Your task to perform on an android device: Clear the shopping cart on walmart.com. Add apple airpods to the cart on walmart.com Image 0: 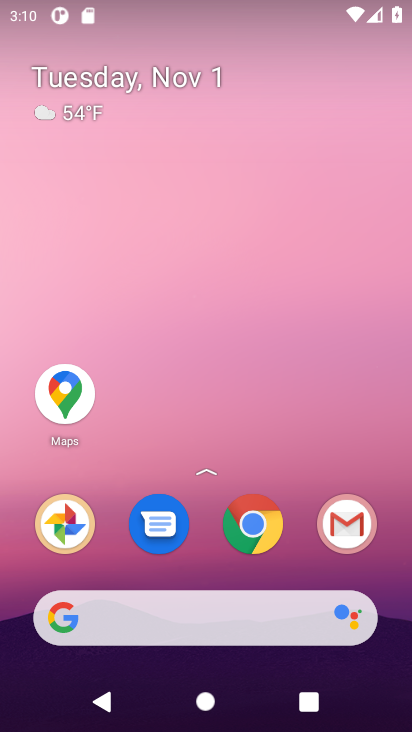
Step 0: click (255, 526)
Your task to perform on an android device: Clear the shopping cart on walmart.com. Add apple airpods to the cart on walmart.com Image 1: 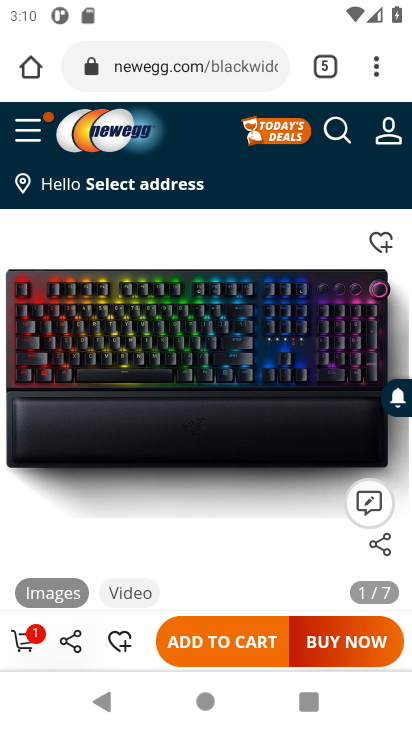
Step 1: click (199, 46)
Your task to perform on an android device: Clear the shopping cart on walmart.com. Add apple airpods to the cart on walmart.com Image 2: 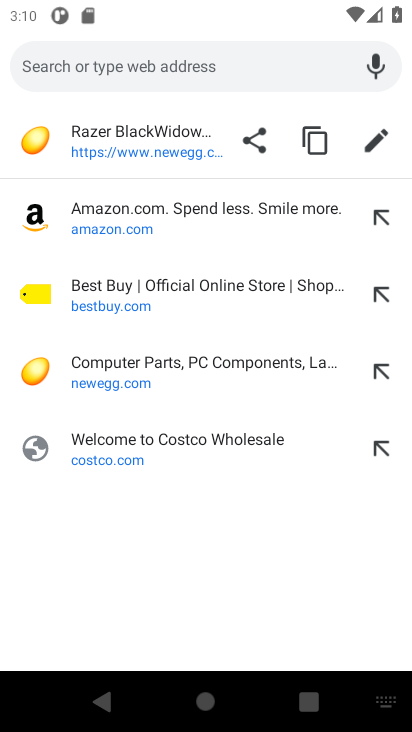
Step 2: type "walmart.com"
Your task to perform on an android device: Clear the shopping cart on walmart.com. Add apple airpods to the cart on walmart.com Image 3: 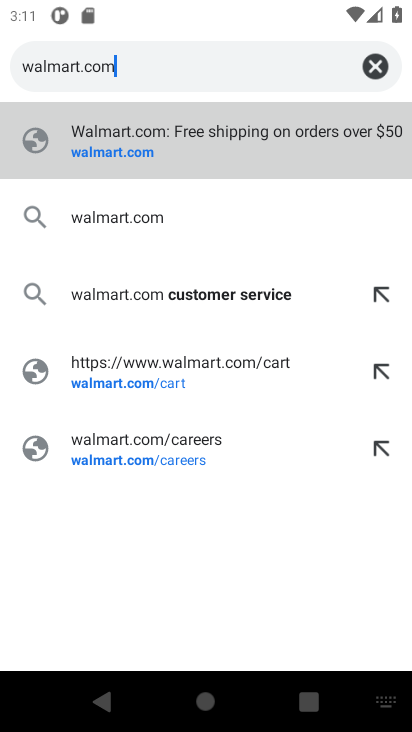
Step 3: click (92, 132)
Your task to perform on an android device: Clear the shopping cart on walmart.com. Add apple airpods to the cart on walmart.com Image 4: 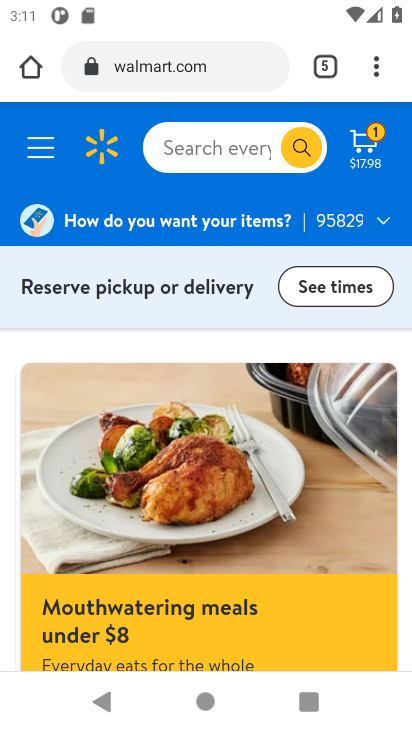
Step 4: click (364, 141)
Your task to perform on an android device: Clear the shopping cart on walmart.com. Add apple airpods to the cart on walmart.com Image 5: 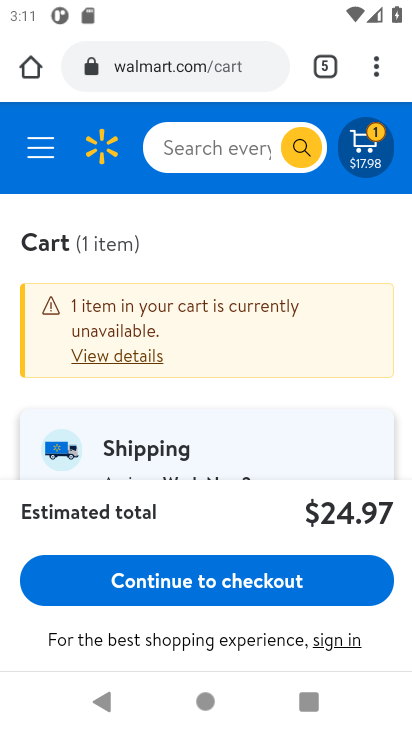
Step 5: drag from (226, 452) to (185, 211)
Your task to perform on an android device: Clear the shopping cart on walmart.com. Add apple airpods to the cart on walmart.com Image 6: 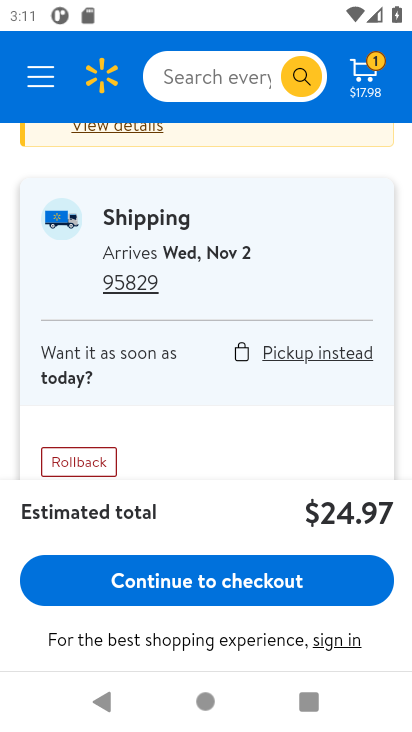
Step 6: drag from (196, 446) to (171, 195)
Your task to perform on an android device: Clear the shopping cart on walmart.com. Add apple airpods to the cart on walmart.com Image 7: 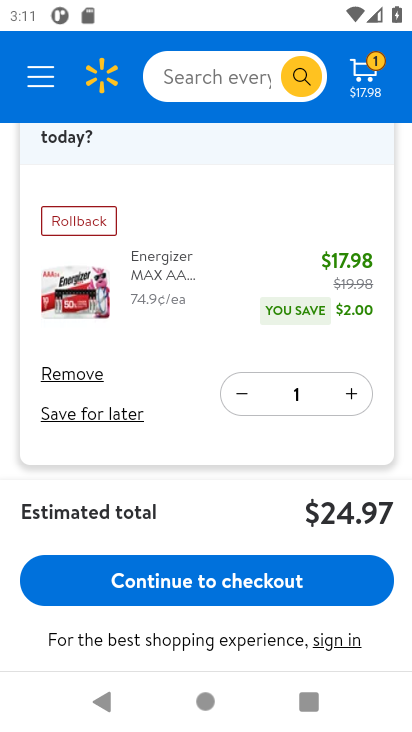
Step 7: click (56, 370)
Your task to perform on an android device: Clear the shopping cart on walmart.com. Add apple airpods to the cart on walmart.com Image 8: 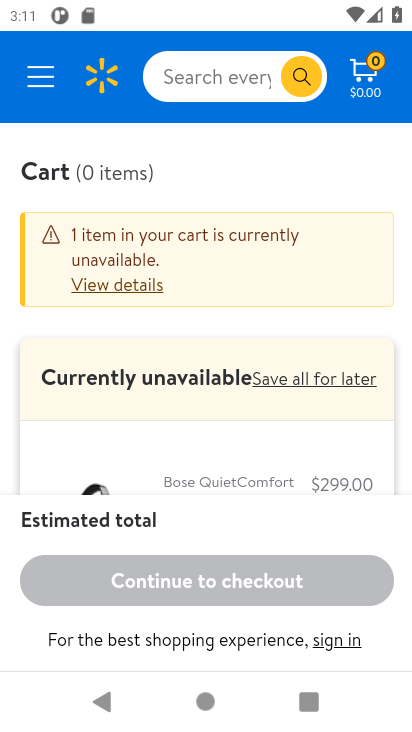
Step 8: drag from (237, 476) to (227, 173)
Your task to perform on an android device: Clear the shopping cart on walmart.com. Add apple airpods to the cart on walmart.com Image 9: 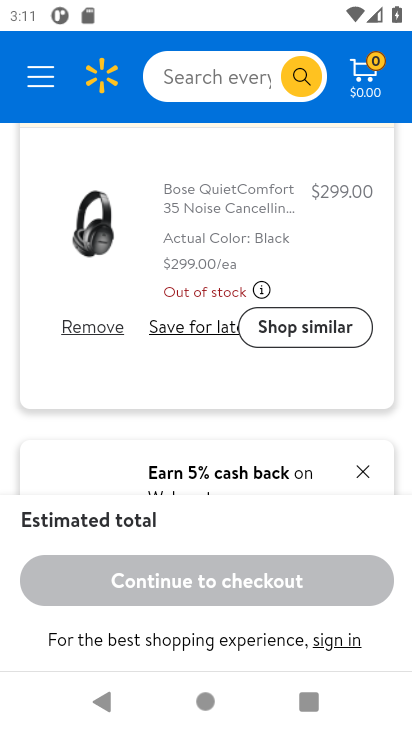
Step 9: click (185, 68)
Your task to perform on an android device: Clear the shopping cart on walmart.com. Add apple airpods to the cart on walmart.com Image 10: 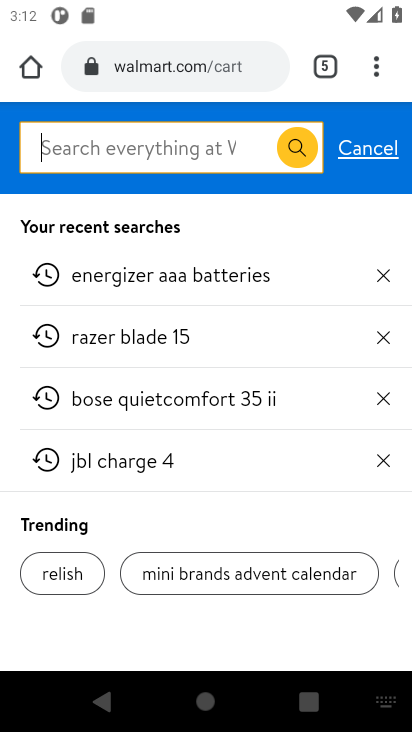
Step 10: type "apple airpods"
Your task to perform on an android device: Clear the shopping cart on walmart.com. Add apple airpods to the cart on walmart.com Image 11: 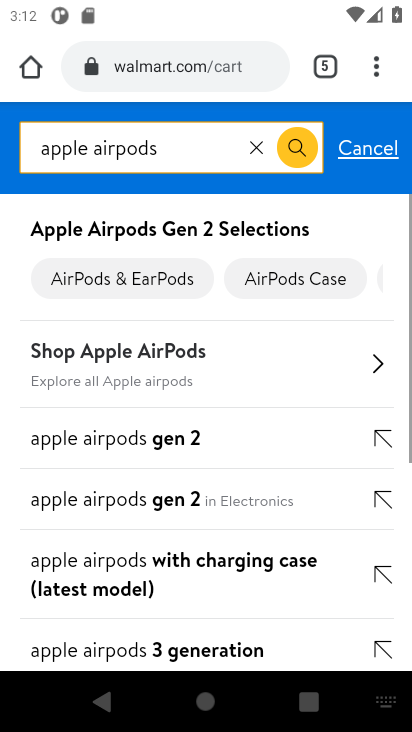
Step 11: click (91, 226)
Your task to perform on an android device: Clear the shopping cart on walmart.com. Add apple airpods to the cart on walmart.com Image 12: 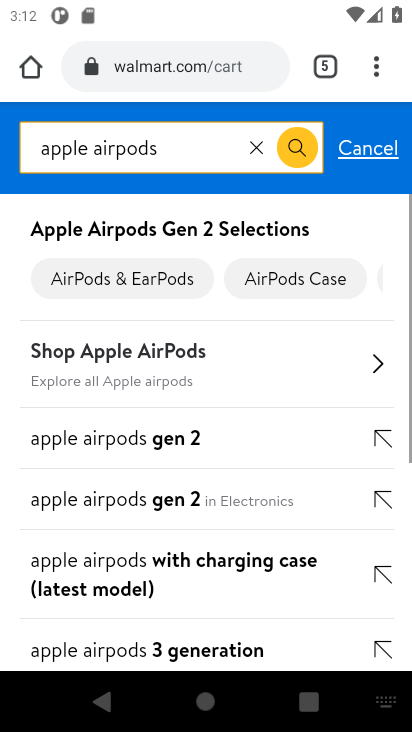
Step 12: click (80, 357)
Your task to perform on an android device: Clear the shopping cart on walmart.com. Add apple airpods to the cart on walmart.com Image 13: 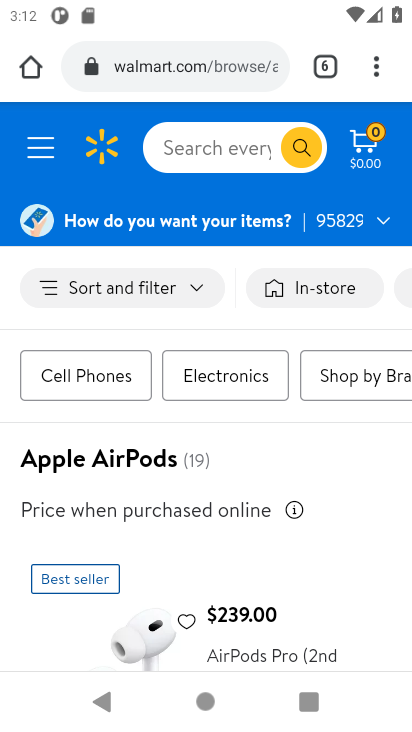
Step 13: drag from (207, 534) to (189, 187)
Your task to perform on an android device: Clear the shopping cart on walmart.com. Add apple airpods to the cart on walmart.com Image 14: 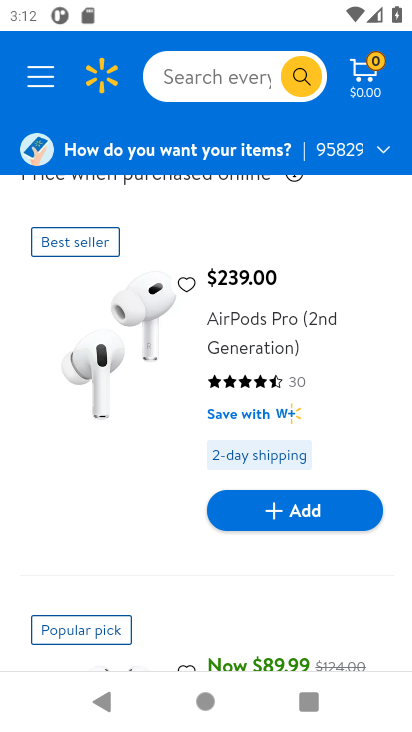
Step 14: click (275, 506)
Your task to perform on an android device: Clear the shopping cart on walmart.com. Add apple airpods to the cart on walmart.com Image 15: 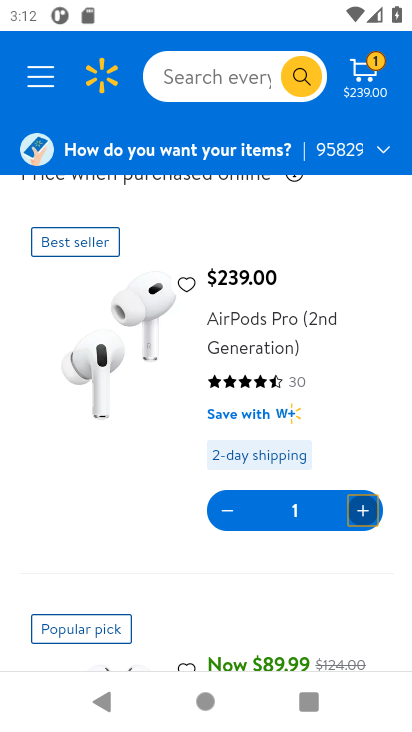
Step 15: task complete